Your task to perform on an android device: open app "LinkedIn" (install if not already installed), go to login, and select forgot password Image 0: 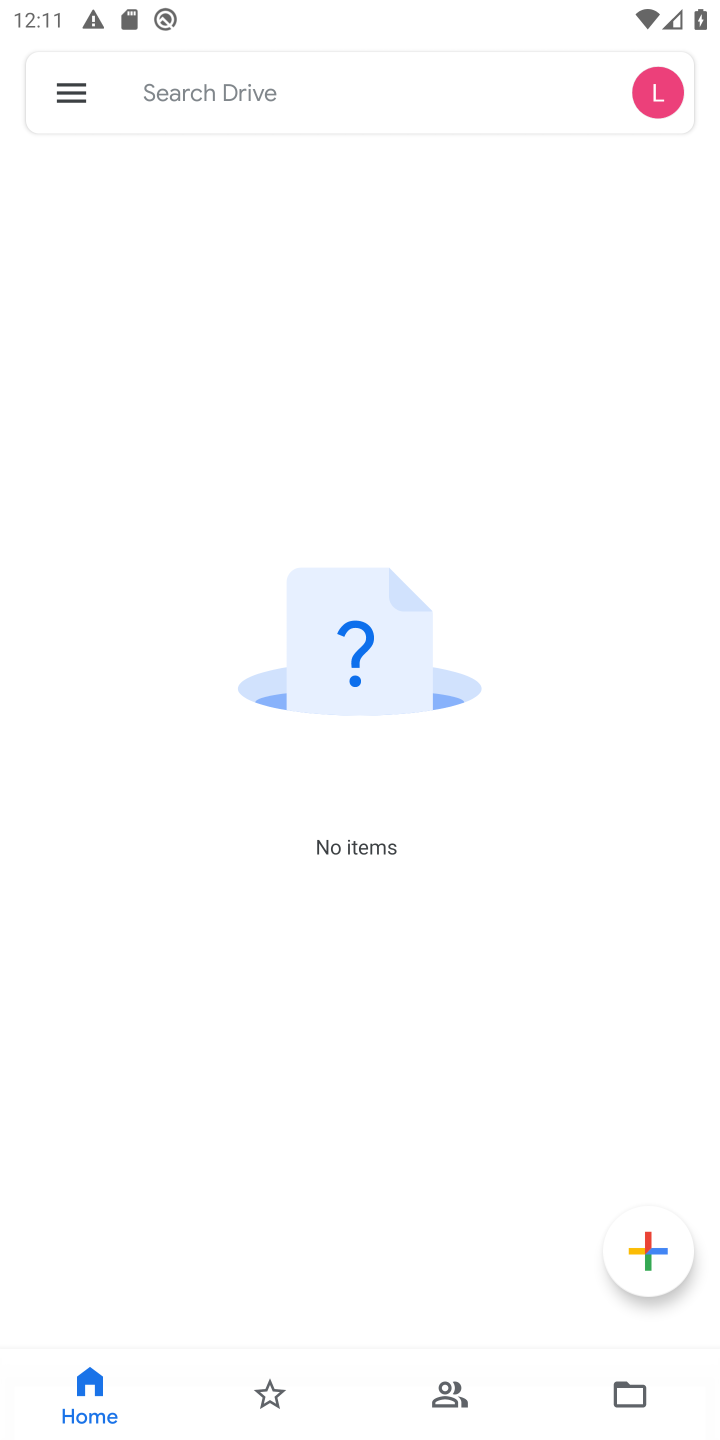
Step 0: press home button
Your task to perform on an android device: open app "LinkedIn" (install if not already installed), go to login, and select forgot password Image 1: 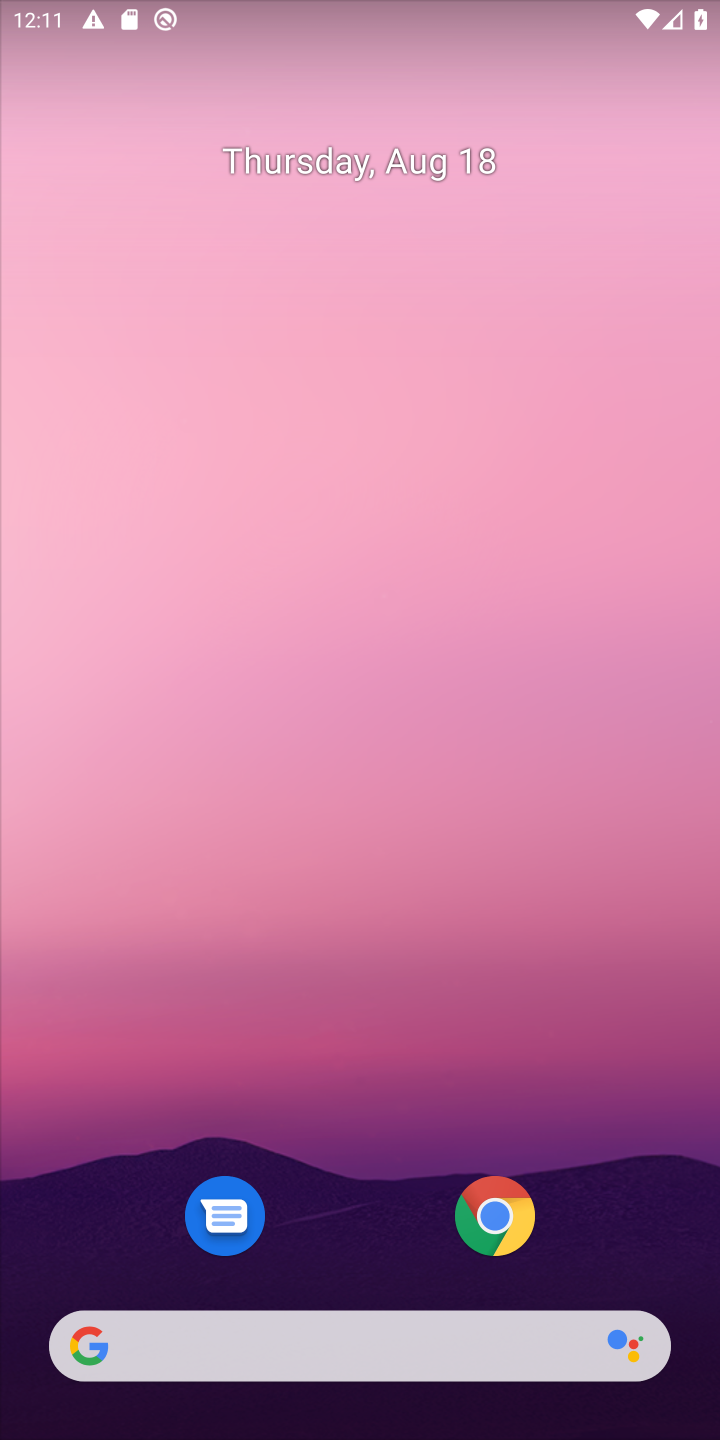
Step 1: drag from (387, 1193) to (324, 403)
Your task to perform on an android device: open app "LinkedIn" (install if not already installed), go to login, and select forgot password Image 2: 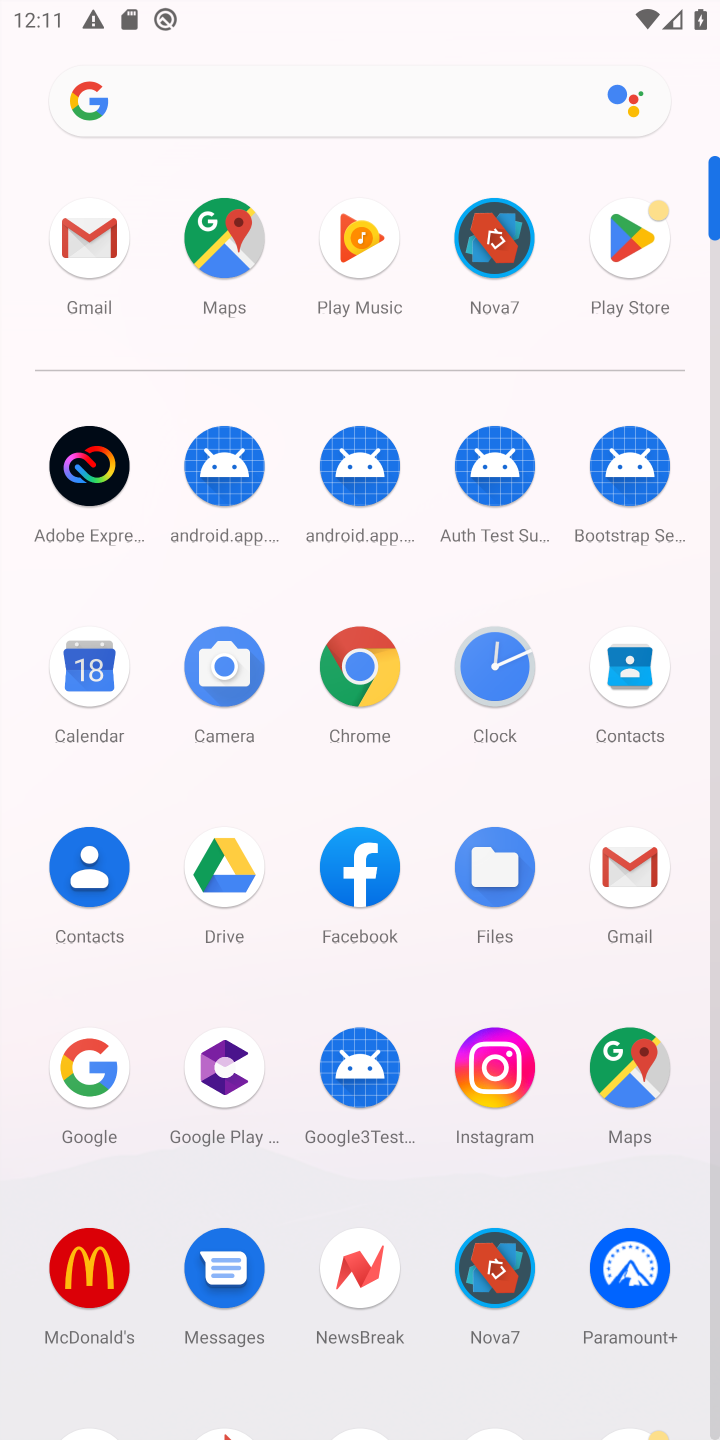
Step 2: click (627, 222)
Your task to perform on an android device: open app "LinkedIn" (install if not already installed), go to login, and select forgot password Image 3: 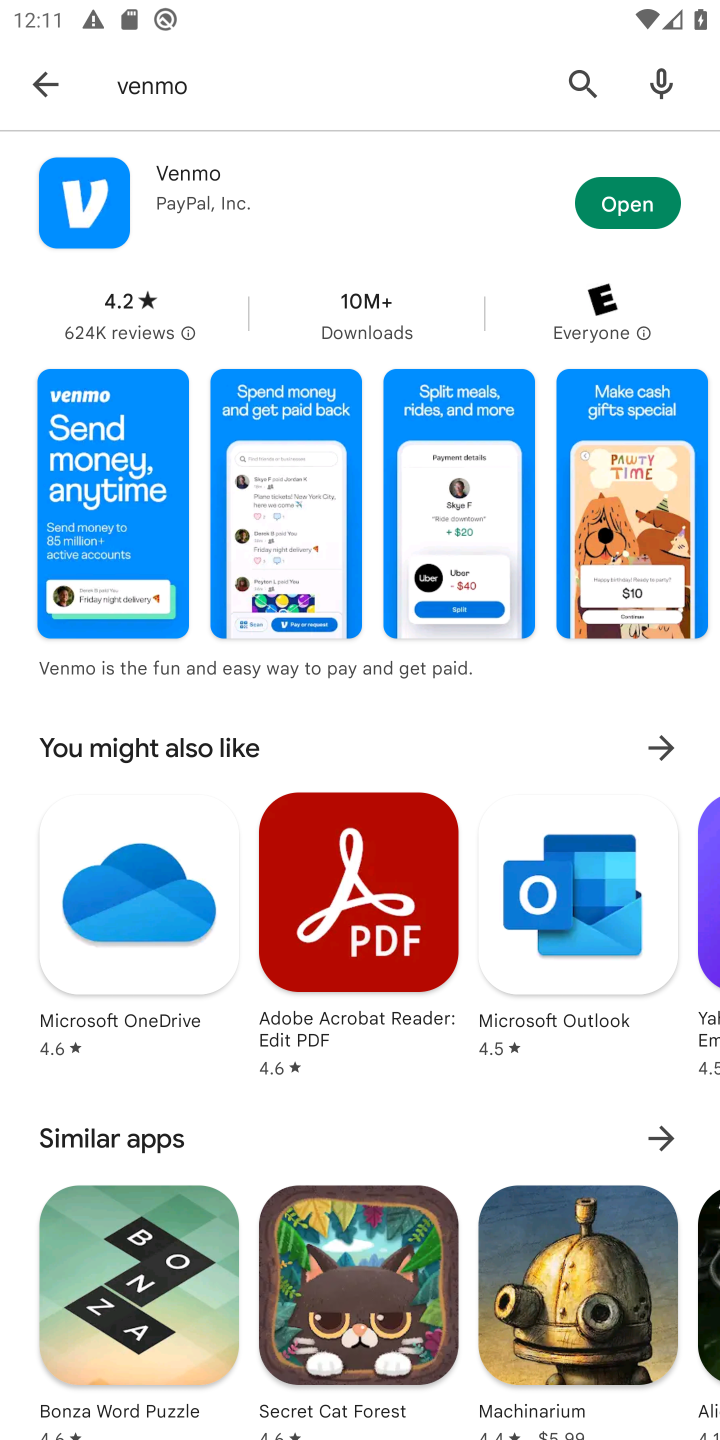
Step 3: click (572, 81)
Your task to perform on an android device: open app "LinkedIn" (install if not already installed), go to login, and select forgot password Image 4: 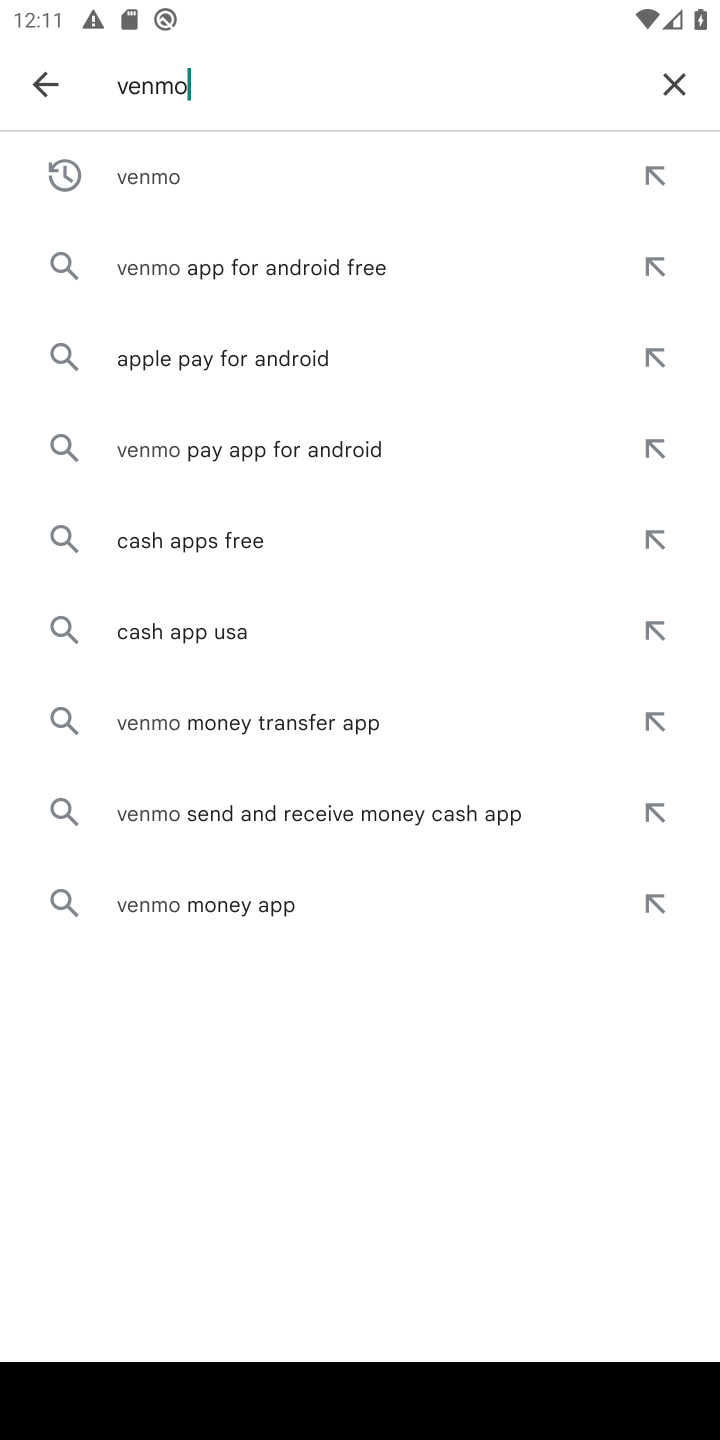
Step 4: click (677, 91)
Your task to perform on an android device: open app "LinkedIn" (install if not already installed), go to login, and select forgot password Image 5: 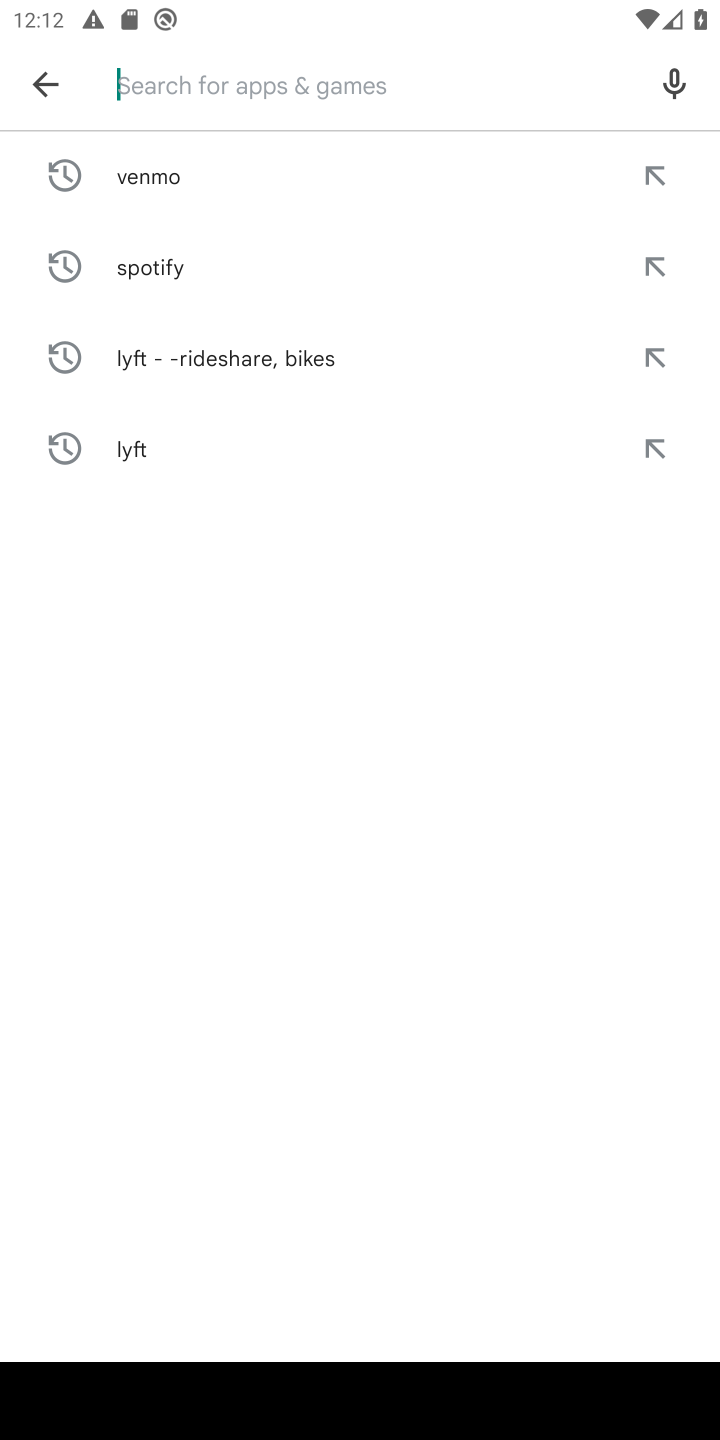
Step 5: type "linkedin"
Your task to perform on an android device: open app "LinkedIn" (install if not already installed), go to login, and select forgot password Image 6: 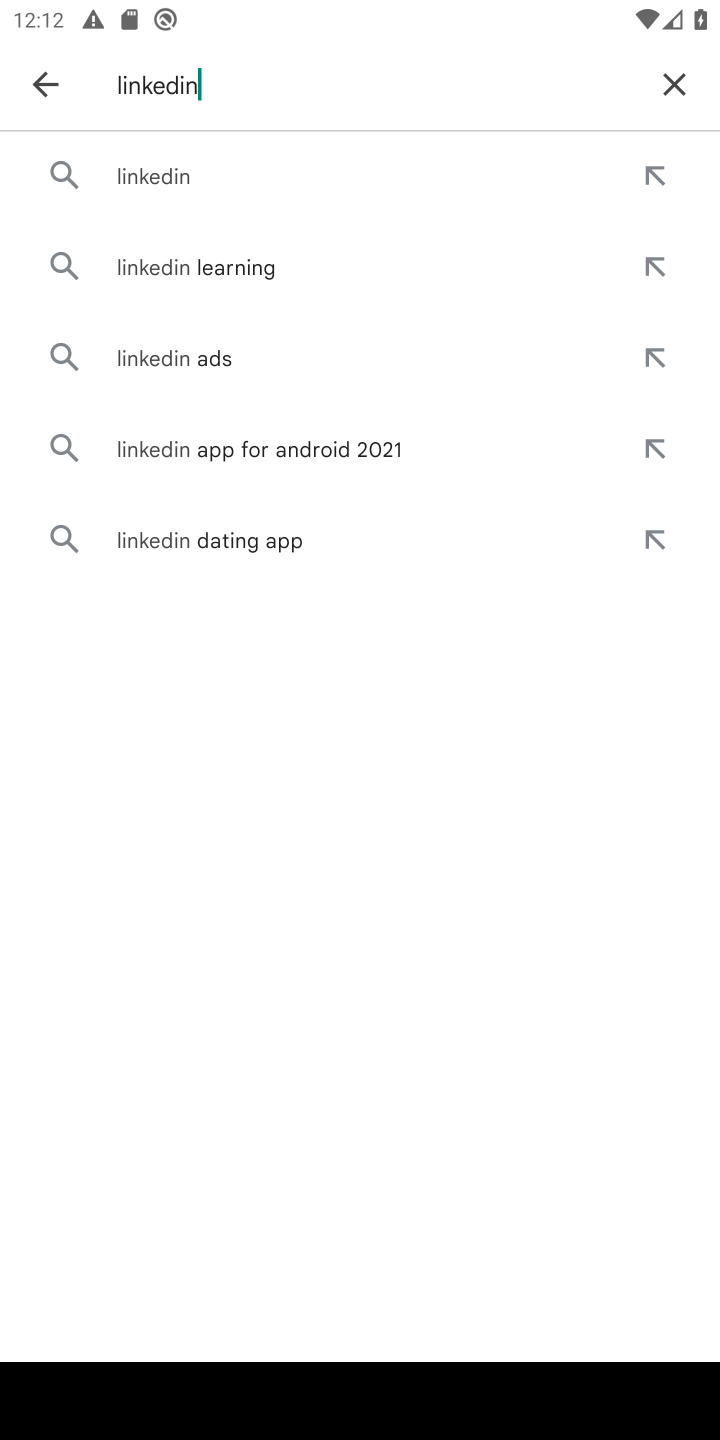
Step 6: click (187, 162)
Your task to perform on an android device: open app "LinkedIn" (install if not already installed), go to login, and select forgot password Image 7: 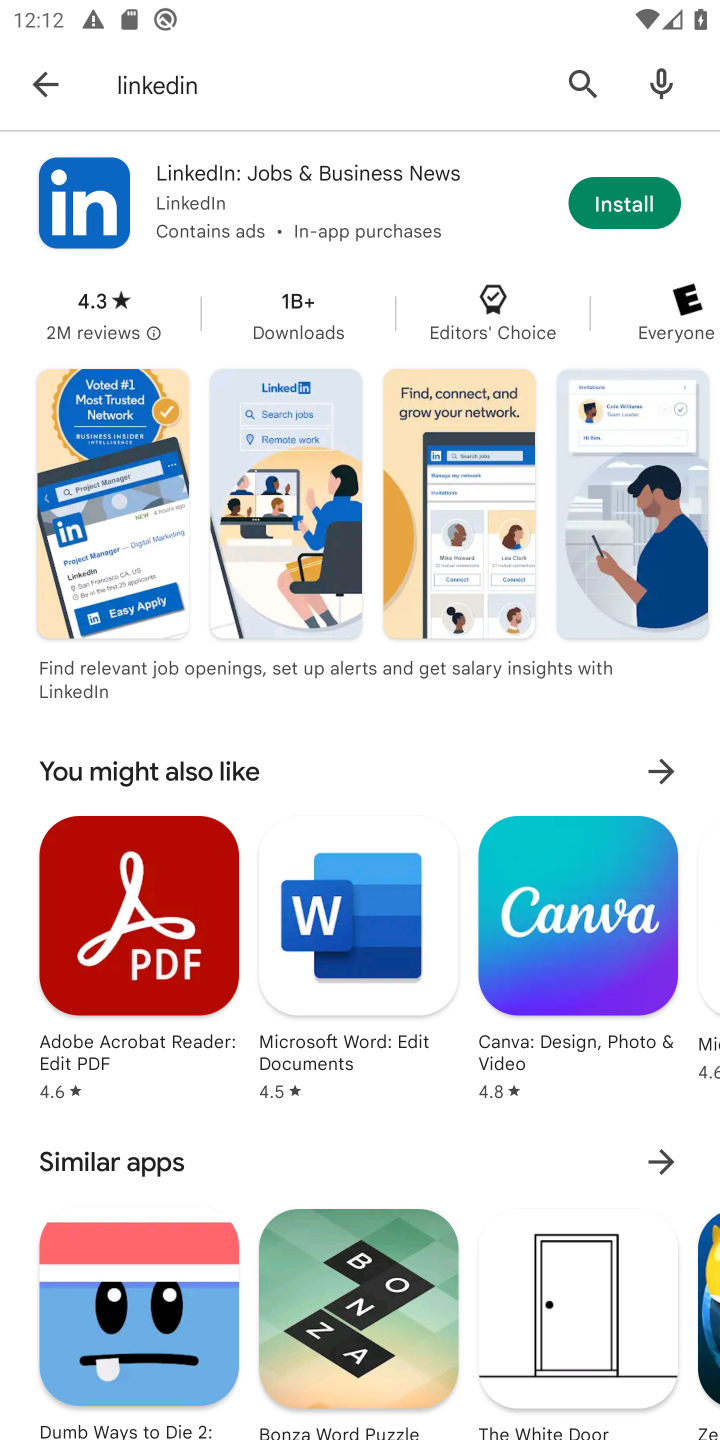
Step 7: click (582, 188)
Your task to perform on an android device: open app "LinkedIn" (install if not already installed), go to login, and select forgot password Image 8: 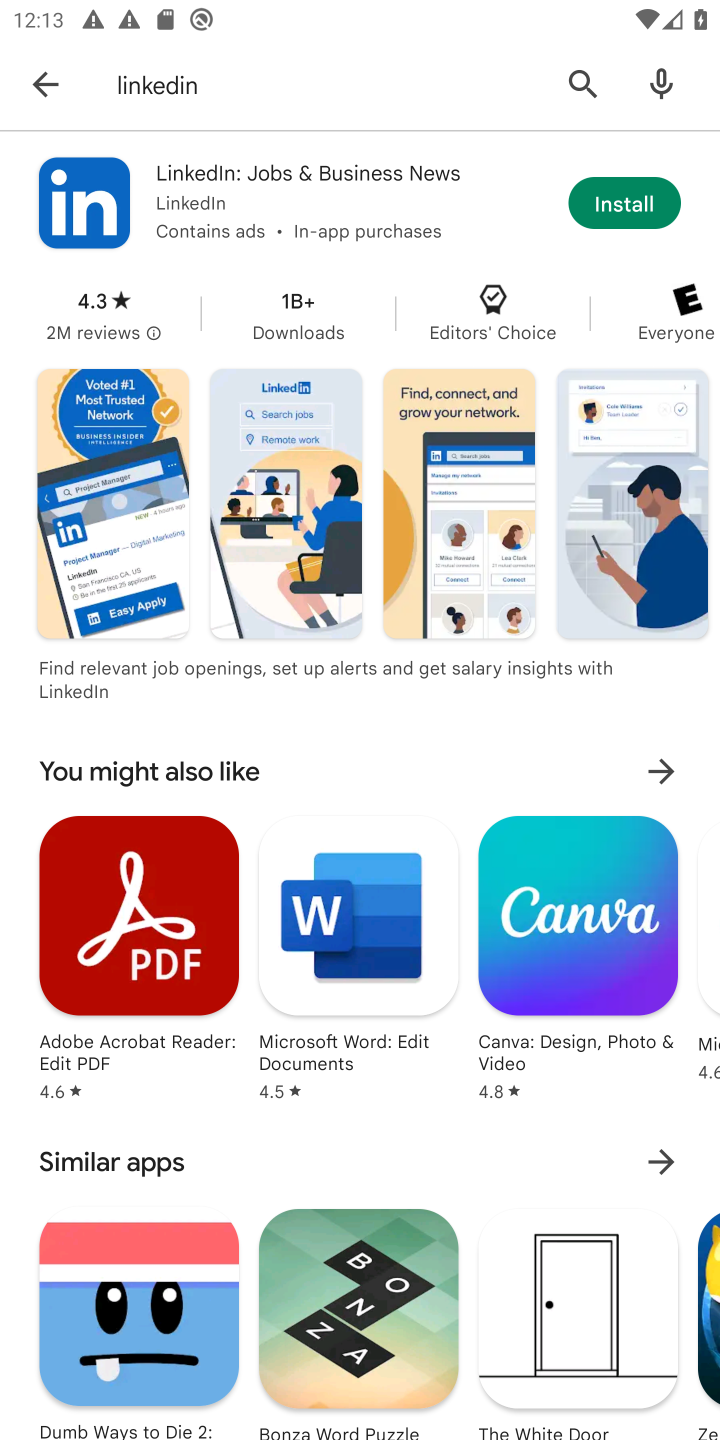
Step 8: click (621, 211)
Your task to perform on an android device: open app "LinkedIn" (install if not already installed), go to login, and select forgot password Image 9: 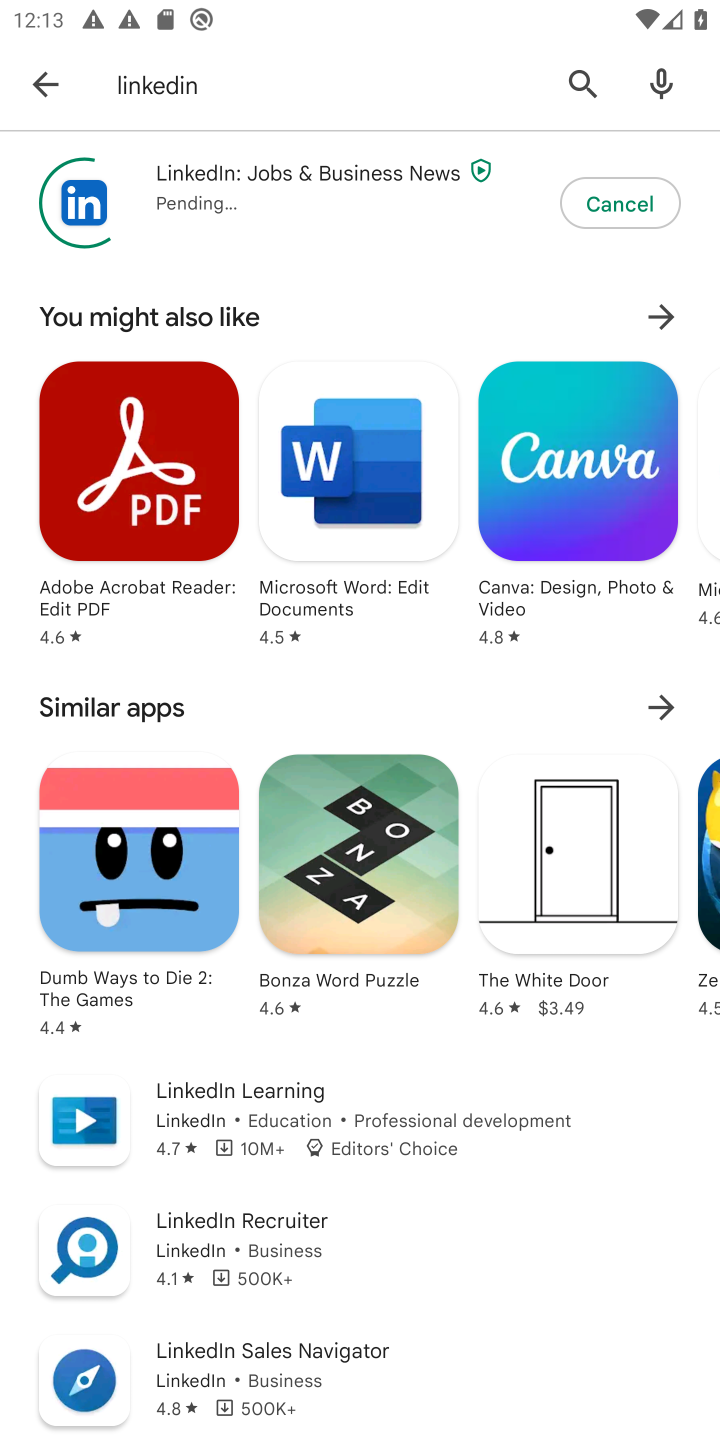
Step 9: click (418, 183)
Your task to perform on an android device: open app "LinkedIn" (install if not already installed), go to login, and select forgot password Image 10: 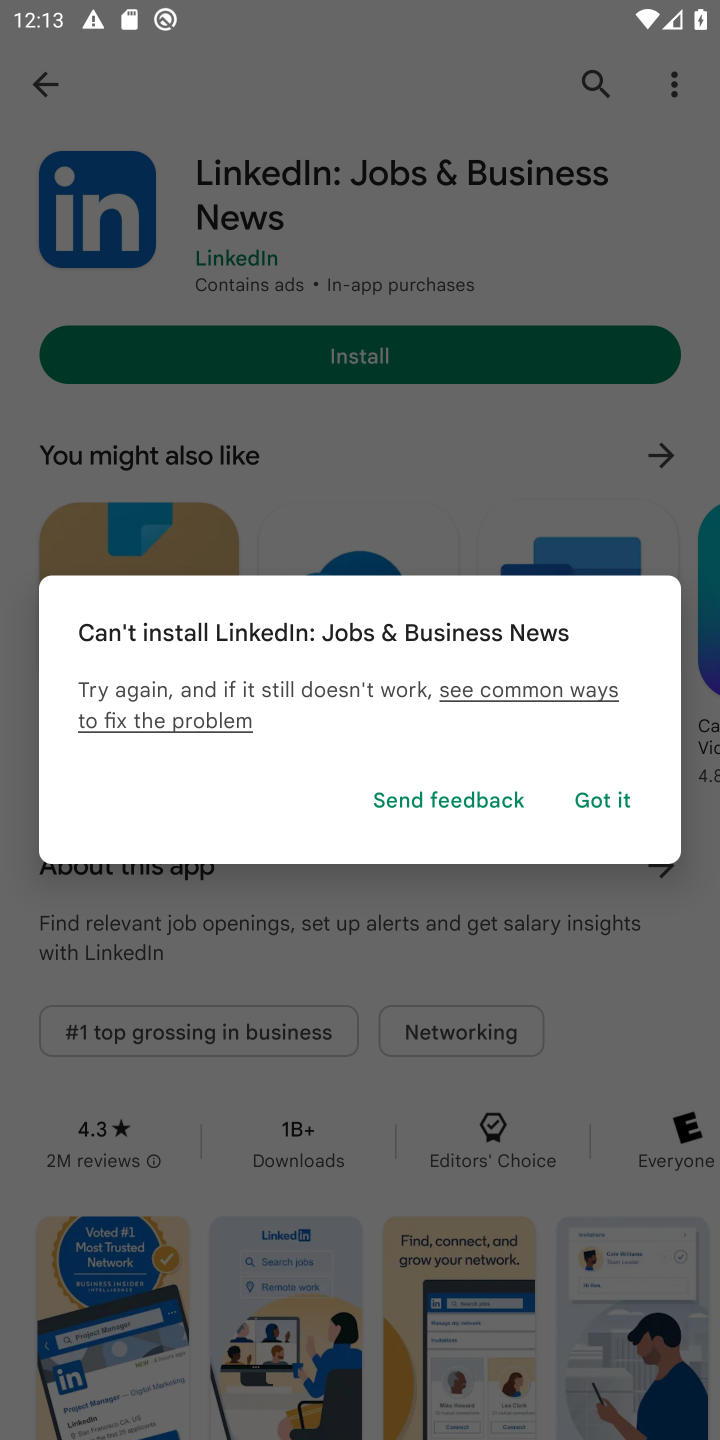
Step 10: click (598, 804)
Your task to perform on an android device: open app "LinkedIn" (install if not already installed), go to login, and select forgot password Image 11: 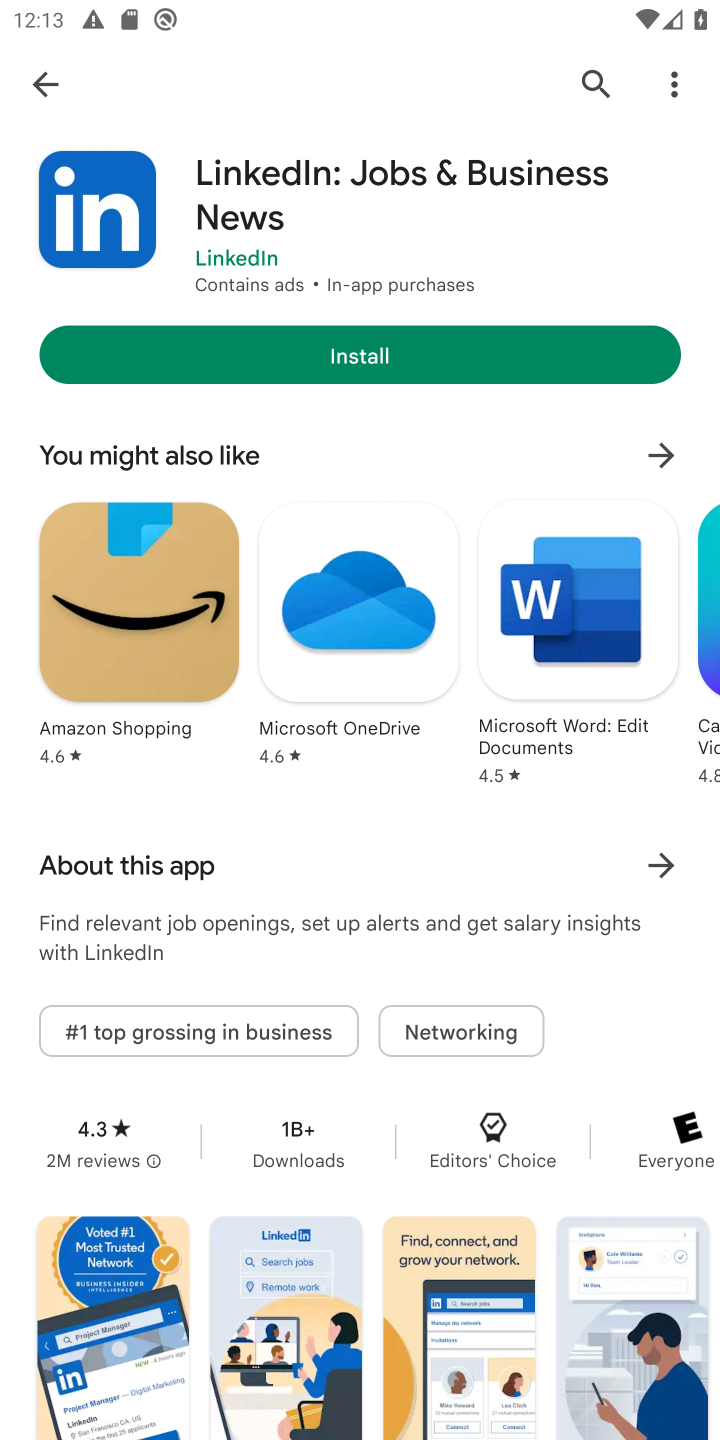
Step 11: task complete